Your task to perform on an android device: see sites visited before in the chrome app Image 0: 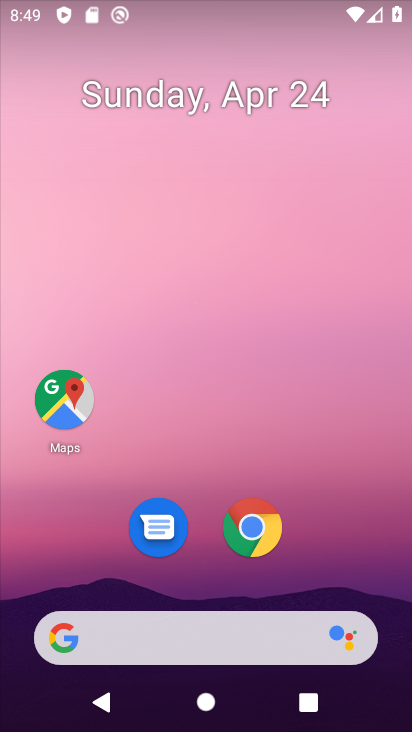
Step 0: drag from (375, 548) to (293, 114)
Your task to perform on an android device: see sites visited before in the chrome app Image 1: 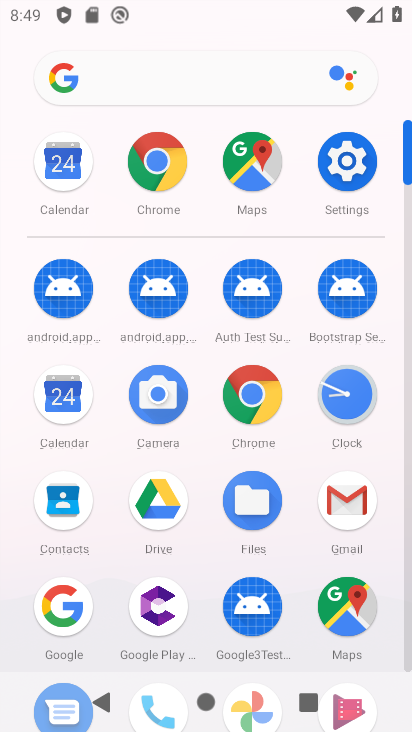
Step 1: click (163, 156)
Your task to perform on an android device: see sites visited before in the chrome app Image 2: 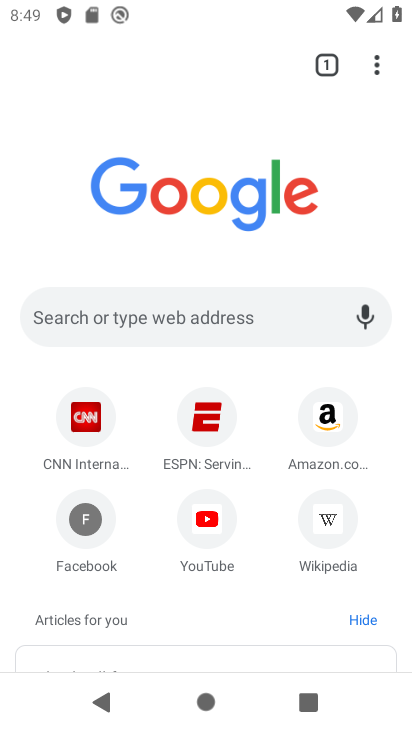
Step 2: click (378, 63)
Your task to perform on an android device: see sites visited before in the chrome app Image 3: 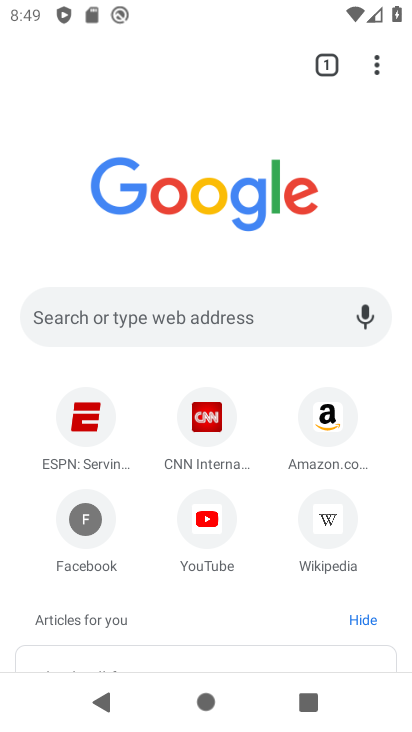
Step 3: click (379, 63)
Your task to perform on an android device: see sites visited before in the chrome app Image 4: 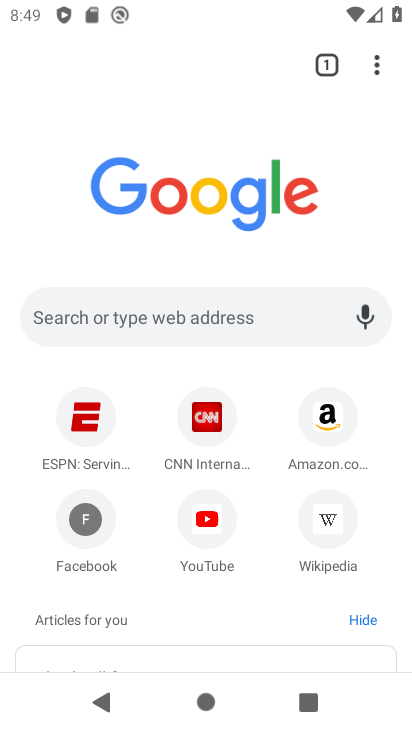
Step 4: click (372, 64)
Your task to perform on an android device: see sites visited before in the chrome app Image 5: 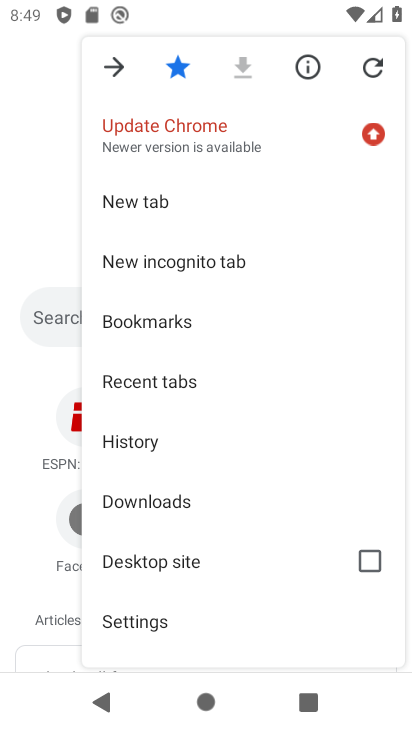
Step 5: click (165, 451)
Your task to perform on an android device: see sites visited before in the chrome app Image 6: 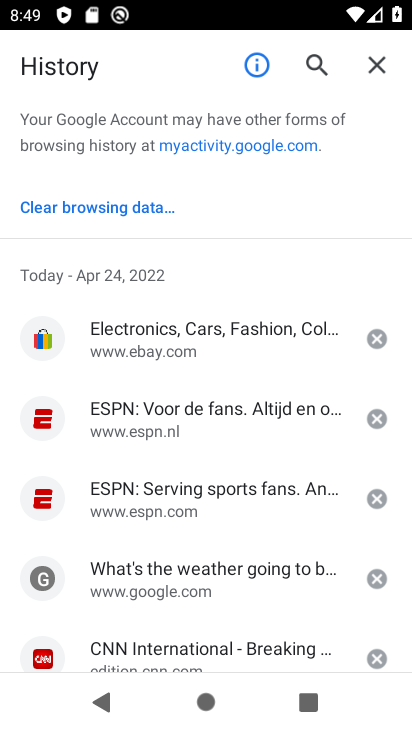
Step 6: click (151, 354)
Your task to perform on an android device: see sites visited before in the chrome app Image 7: 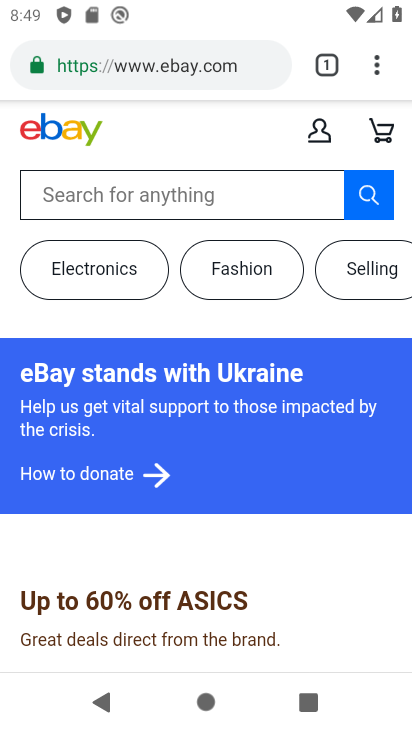
Step 7: task complete